Your task to perform on an android device: star an email in the gmail app Image 0: 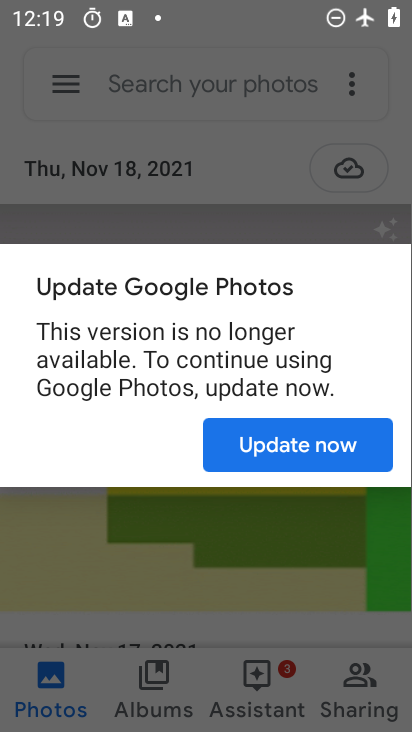
Step 0: press home button
Your task to perform on an android device: star an email in the gmail app Image 1: 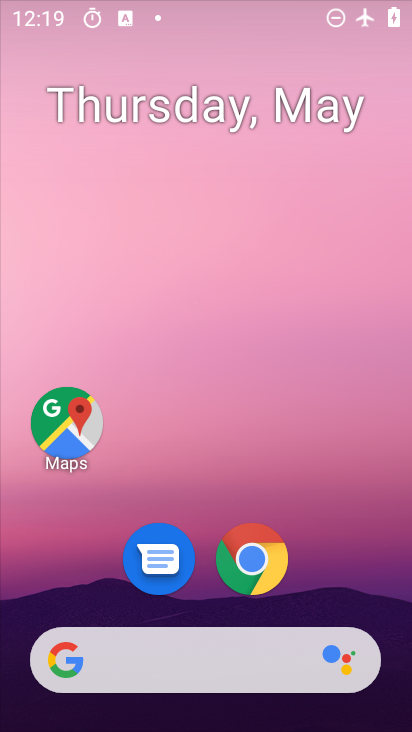
Step 1: drag from (274, 652) to (262, 119)
Your task to perform on an android device: star an email in the gmail app Image 2: 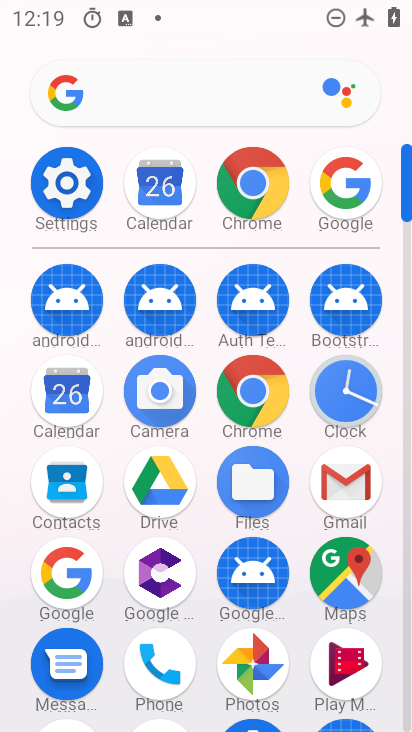
Step 2: click (331, 506)
Your task to perform on an android device: star an email in the gmail app Image 3: 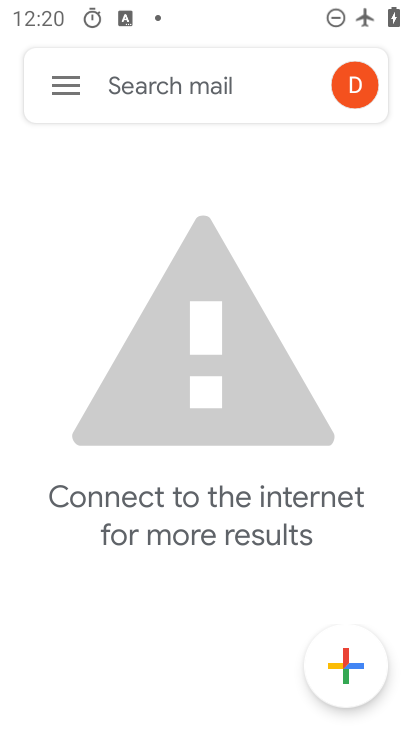
Step 3: click (69, 78)
Your task to perform on an android device: star an email in the gmail app Image 4: 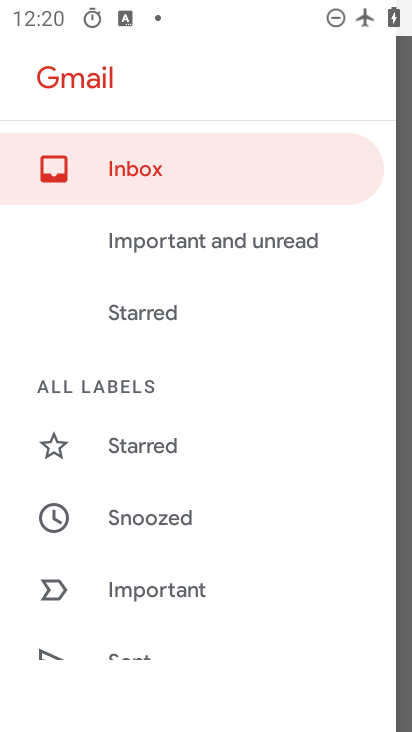
Step 4: drag from (172, 580) to (228, 118)
Your task to perform on an android device: star an email in the gmail app Image 5: 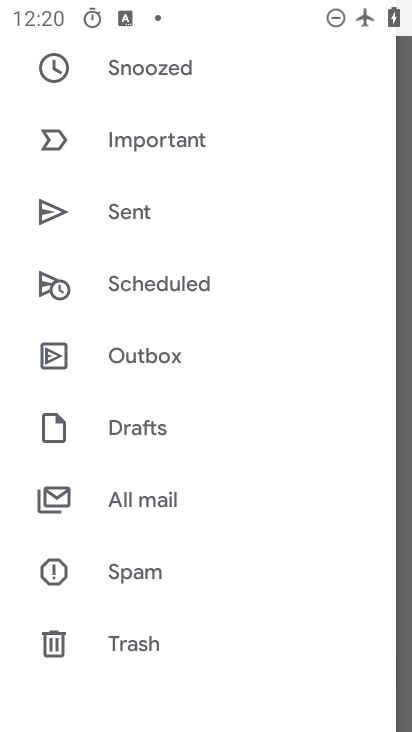
Step 5: click (169, 512)
Your task to perform on an android device: star an email in the gmail app Image 6: 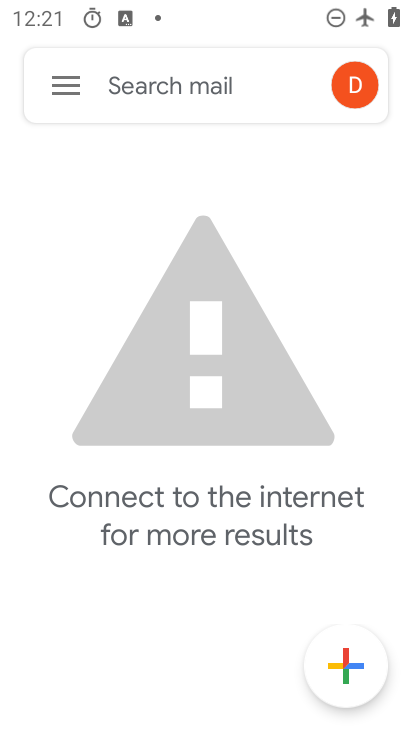
Step 6: task complete